Your task to perform on an android device: Open the web browser Image 0: 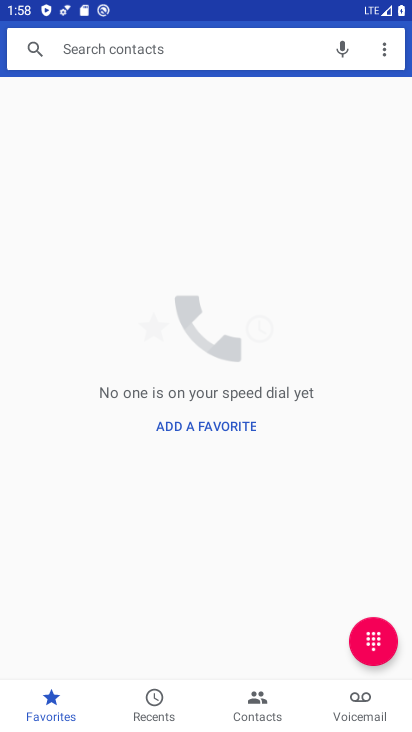
Step 0: press back button
Your task to perform on an android device: Open the web browser Image 1: 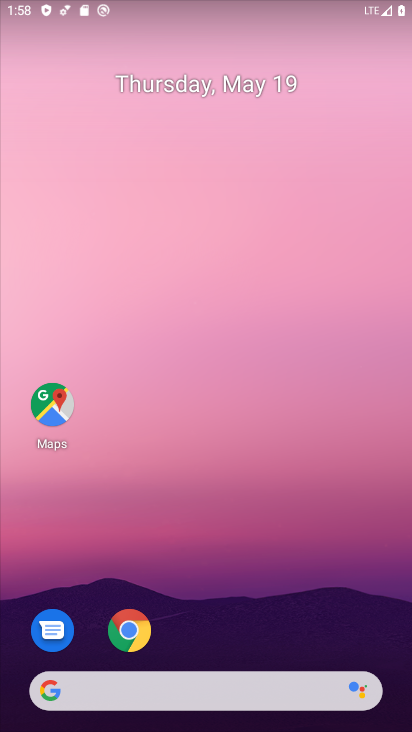
Step 1: drag from (235, 582) to (204, 54)
Your task to perform on an android device: Open the web browser Image 2: 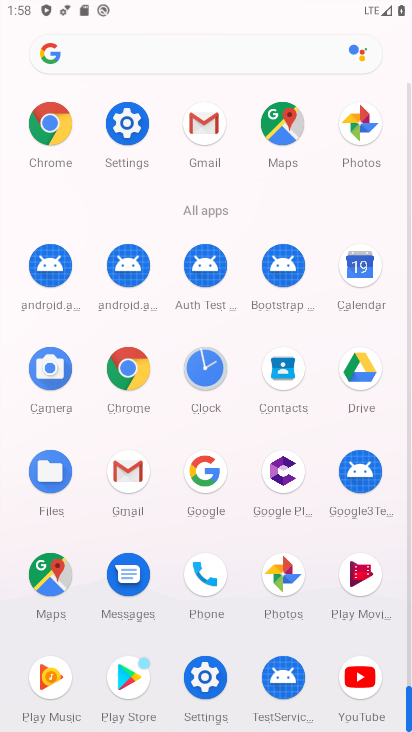
Step 2: drag from (11, 566) to (18, 314)
Your task to perform on an android device: Open the web browser Image 3: 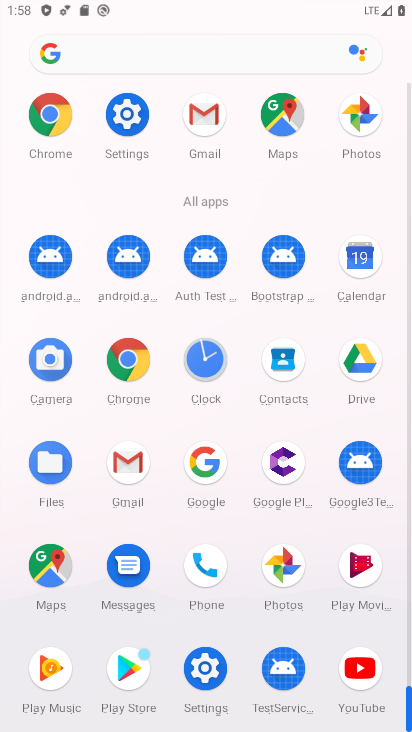
Step 3: click (124, 360)
Your task to perform on an android device: Open the web browser Image 4: 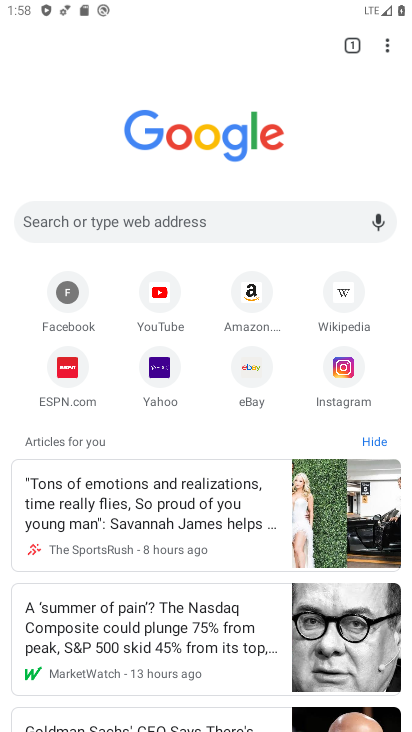
Step 4: task complete